Your task to perform on an android device: Go to Wikipedia Image 0: 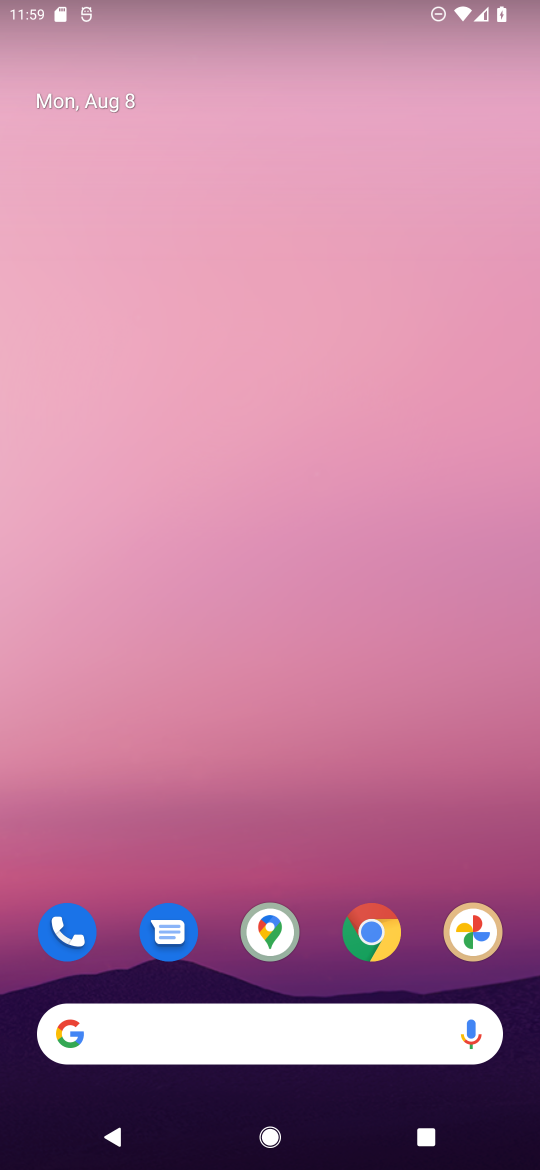
Step 0: click (354, 921)
Your task to perform on an android device: Go to Wikipedia Image 1: 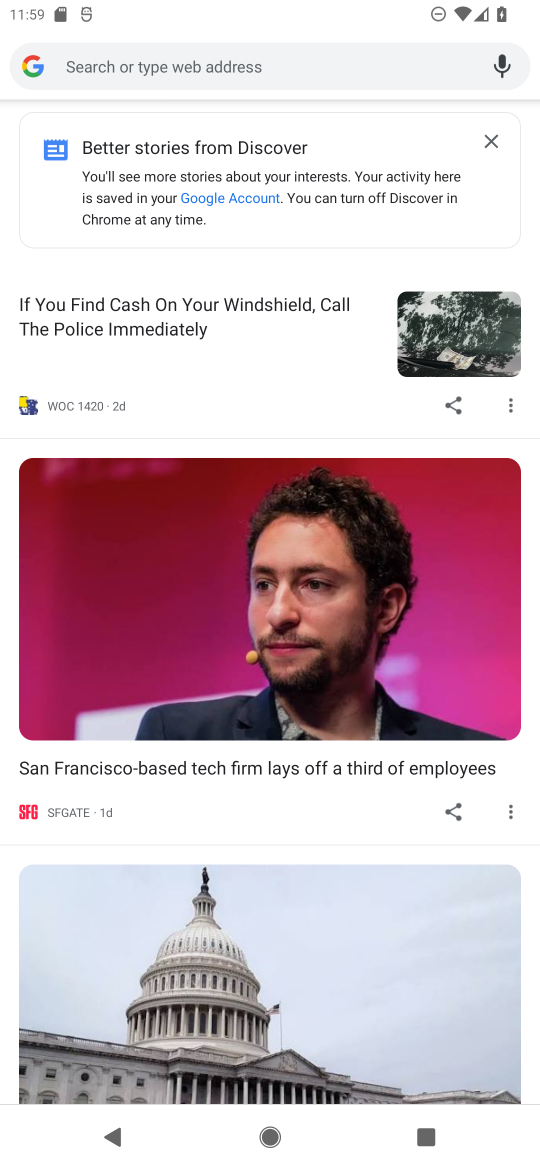
Step 1: drag from (225, 514) to (246, 1093)
Your task to perform on an android device: Go to Wikipedia Image 2: 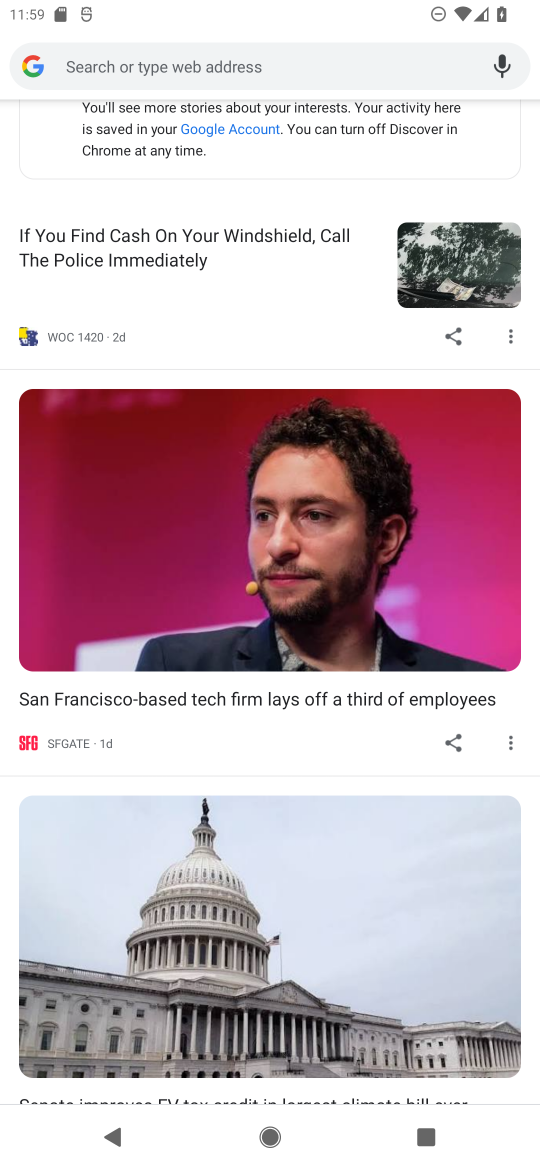
Step 2: drag from (344, 311) to (366, 945)
Your task to perform on an android device: Go to Wikipedia Image 3: 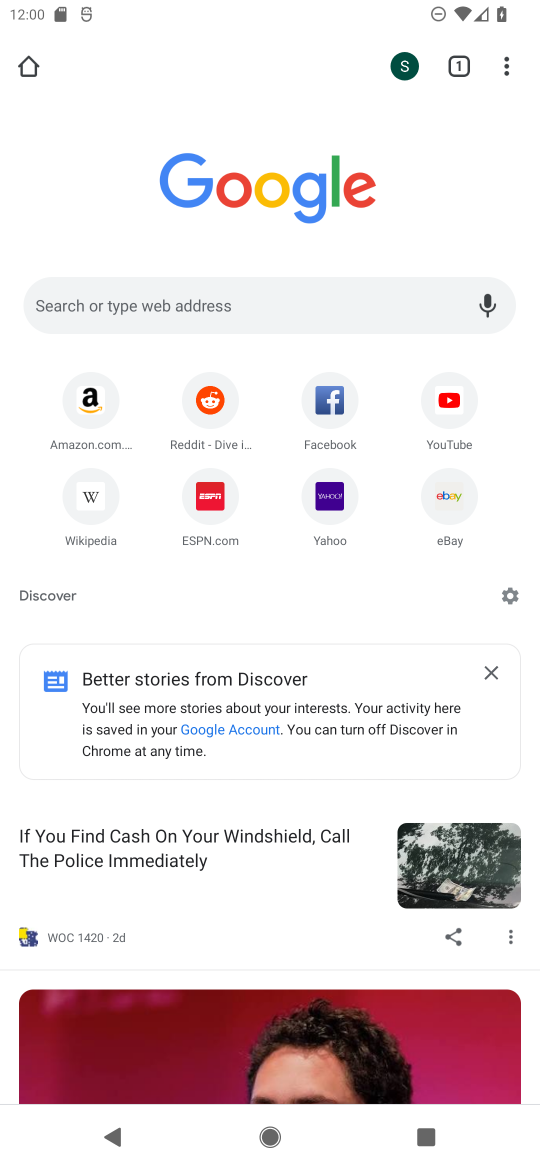
Step 3: click (86, 504)
Your task to perform on an android device: Go to Wikipedia Image 4: 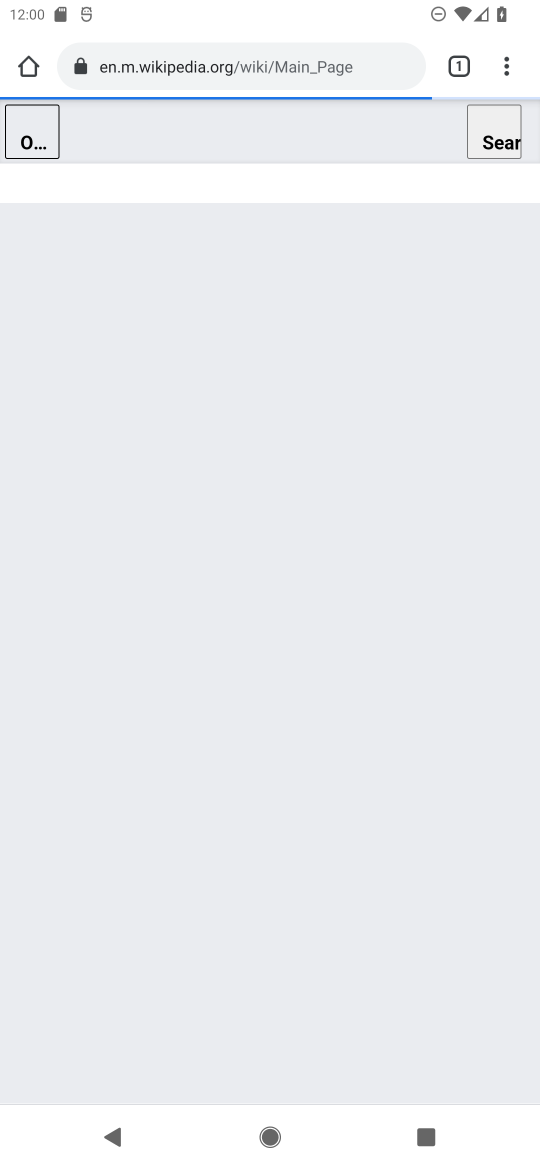
Step 4: click (86, 504)
Your task to perform on an android device: Go to Wikipedia Image 5: 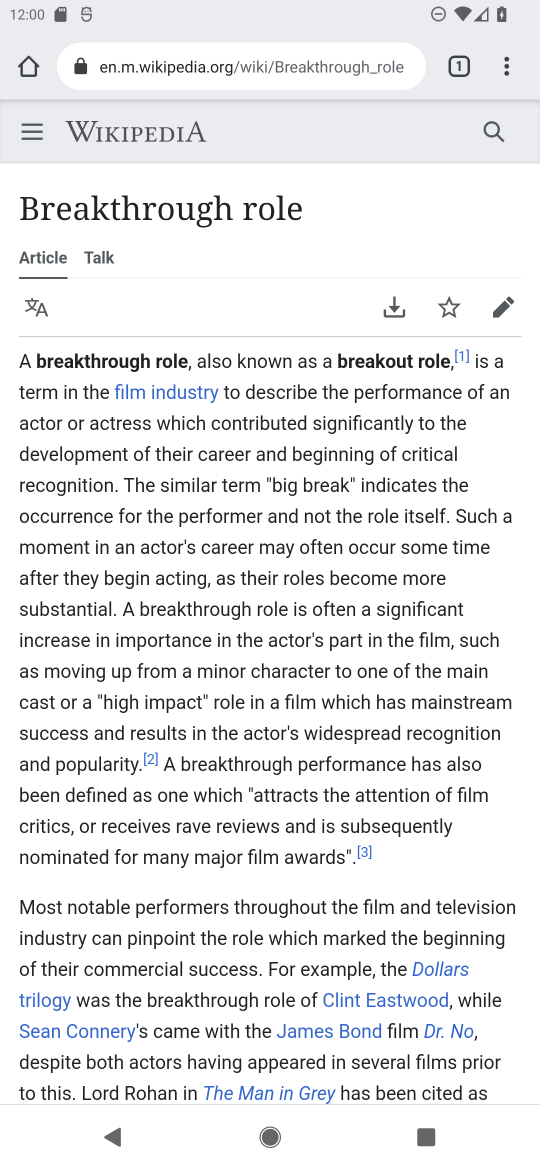
Step 5: task complete